Your task to perform on an android device: View the shopping cart on target.com. Image 0: 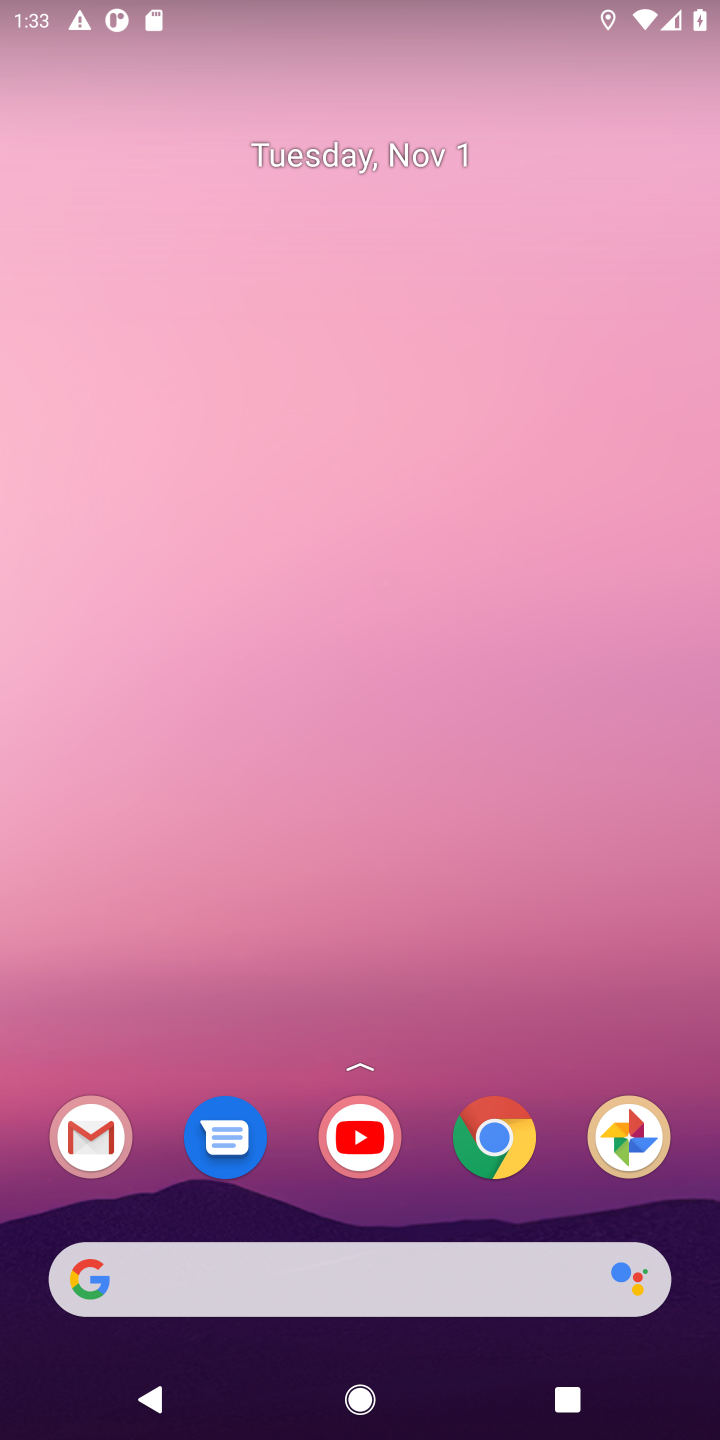
Step 0: drag from (225, 787) to (107, 114)
Your task to perform on an android device: View the shopping cart on target.com. Image 1: 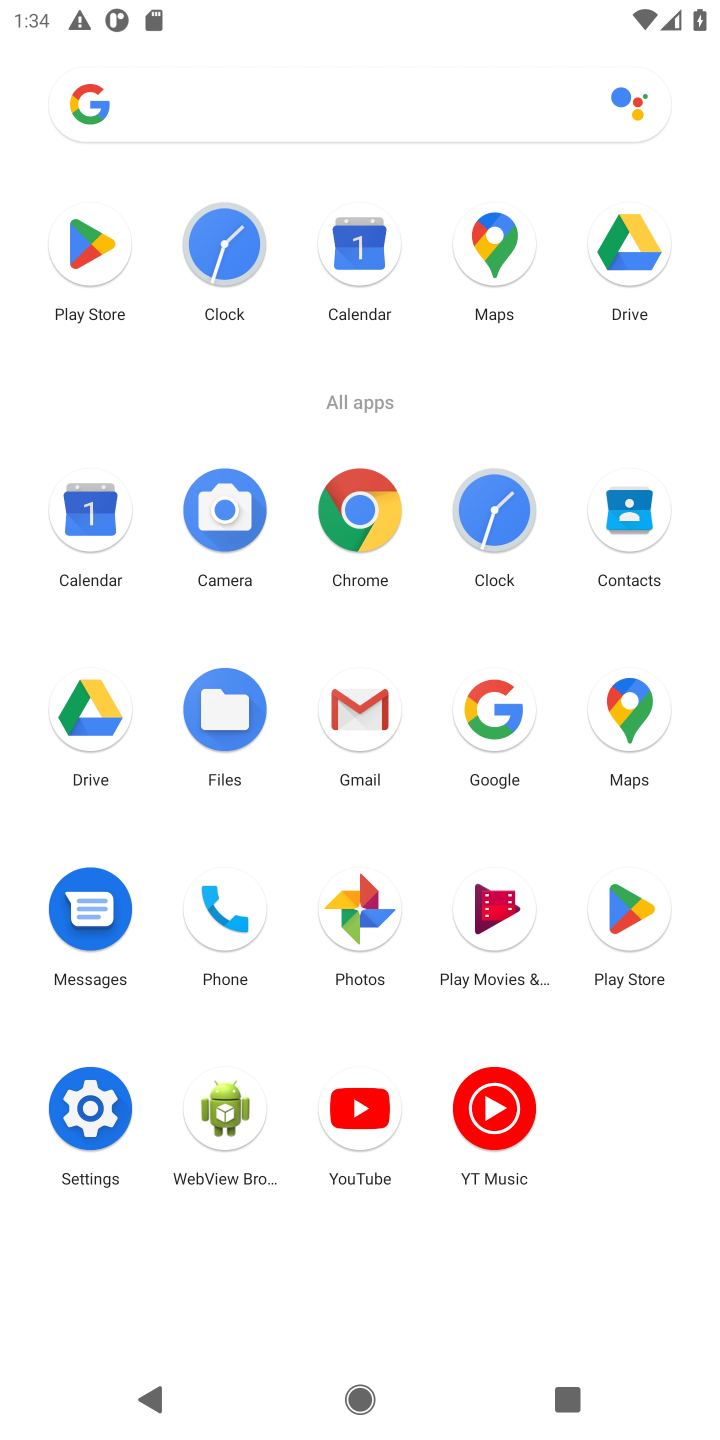
Step 1: click (358, 494)
Your task to perform on an android device: View the shopping cart on target.com. Image 2: 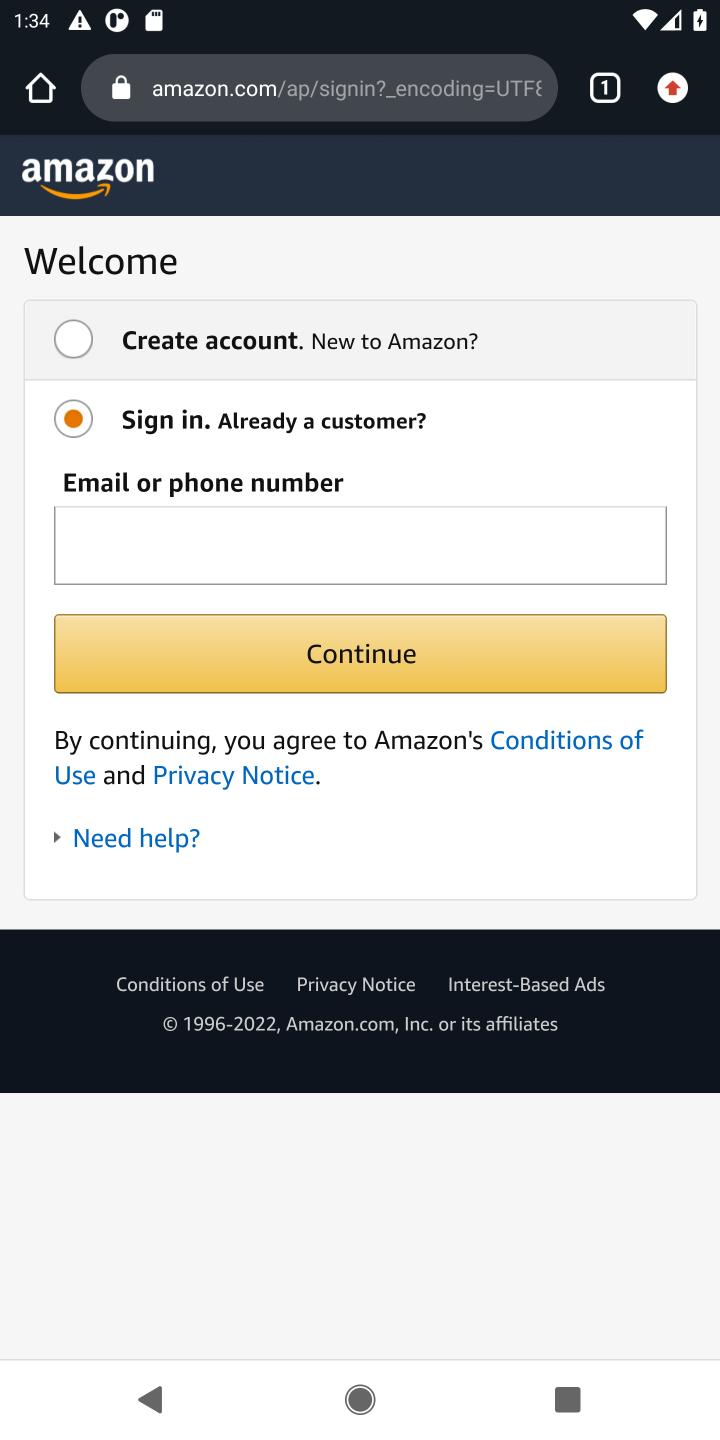
Step 2: click (339, 86)
Your task to perform on an android device: View the shopping cart on target.com. Image 3: 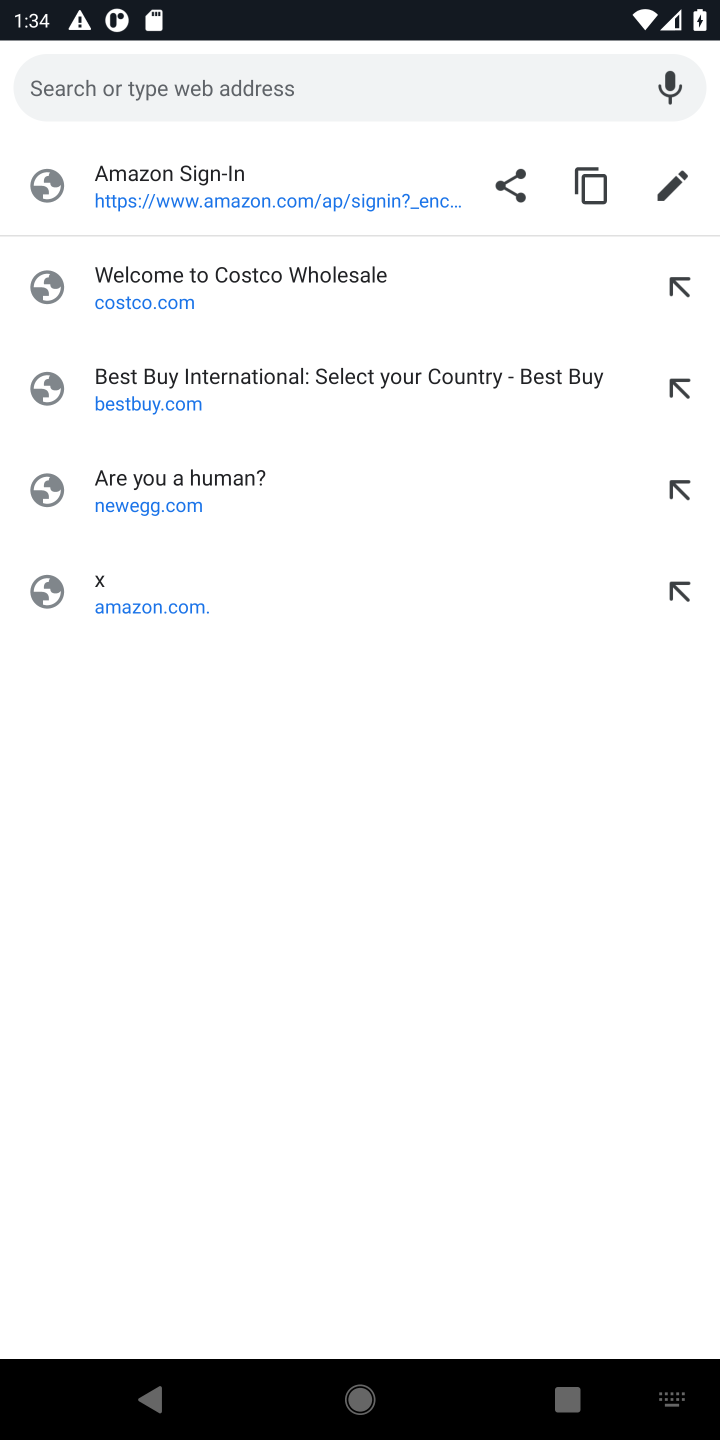
Step 3: type "target.com."
Your task to perform on an android device: View the shopping cart on target.com. Image 4: 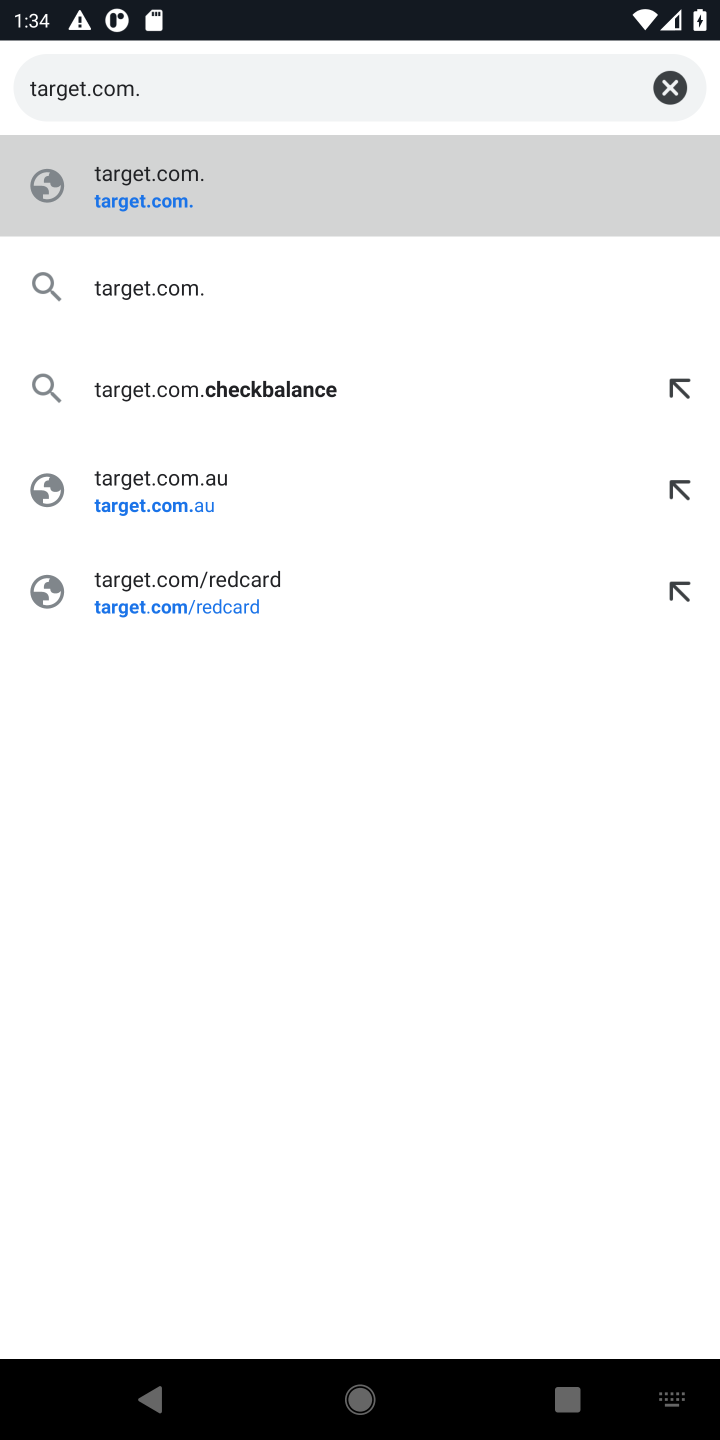
Step 4: press enter
Your task to perform on an android device: View the shopping cart on target.com. Image 5: 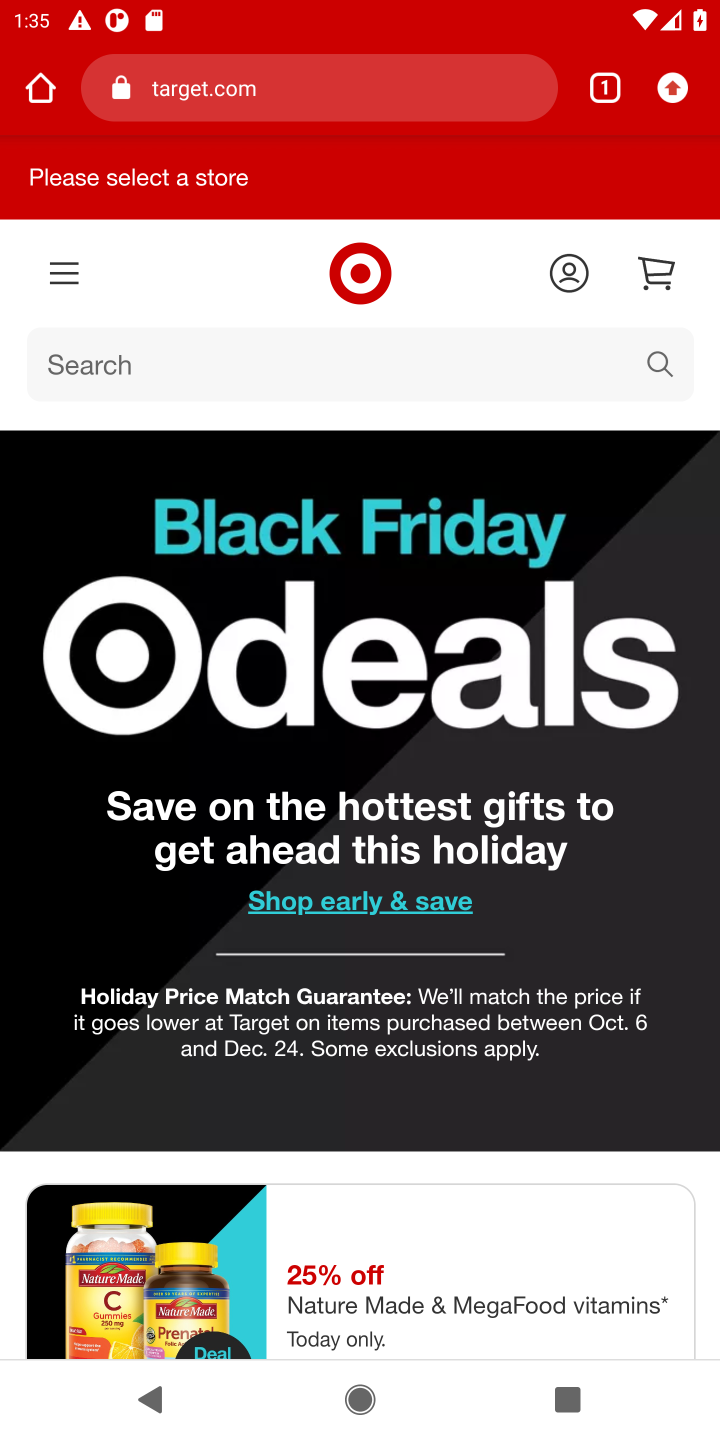
Step 5: click (651, 285)
Your task to perform on an android device: View the shopping cart on target.com. Image 6: 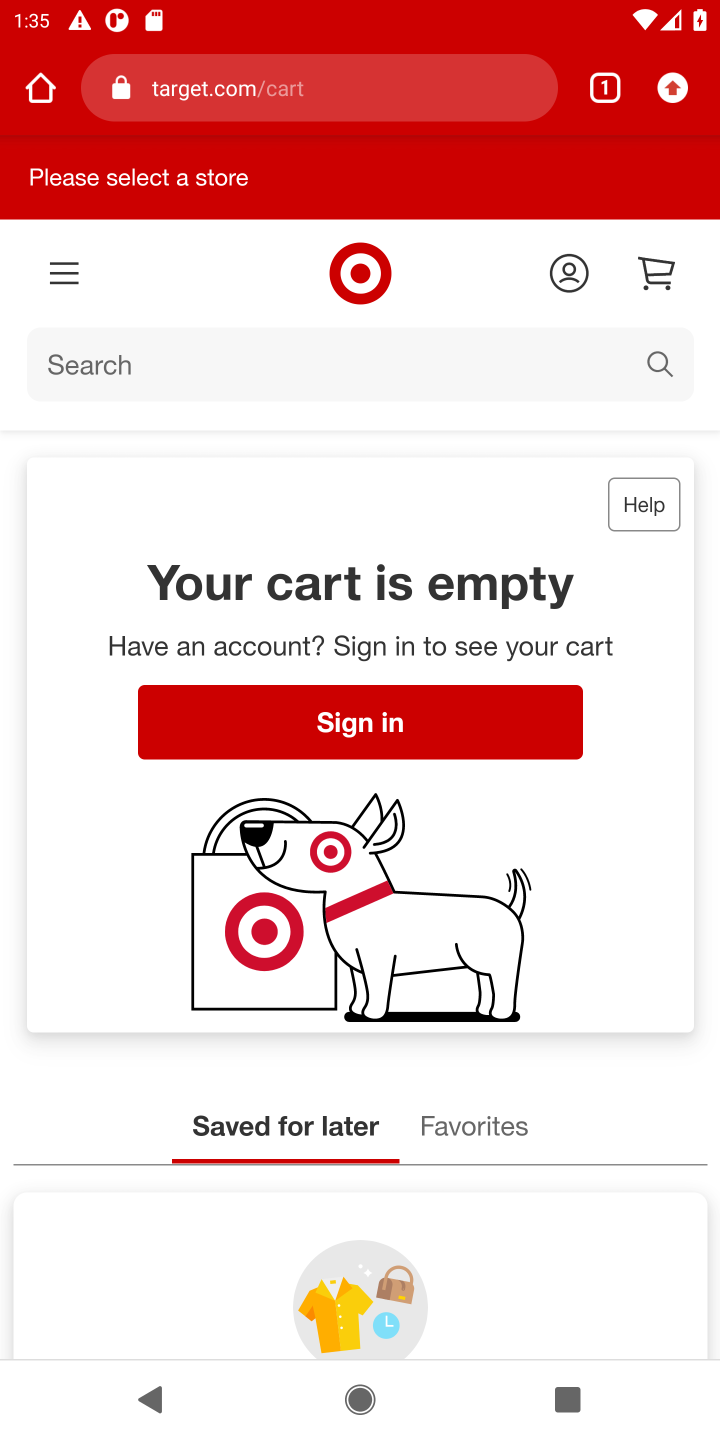
Step 6: task complete